Your task to perform on an android device: stop showing notifications on the lock screen Image 0: 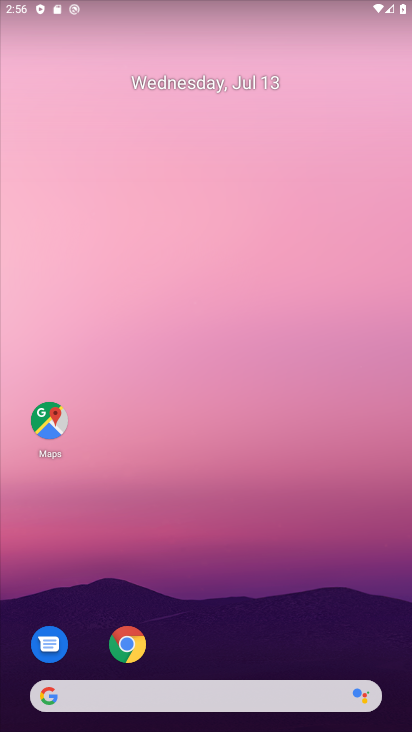
Step 0: drag from (180, 683) to (316, 64)
Your task to perform on an android device: stop showing notifications on the lock screen Image 1: 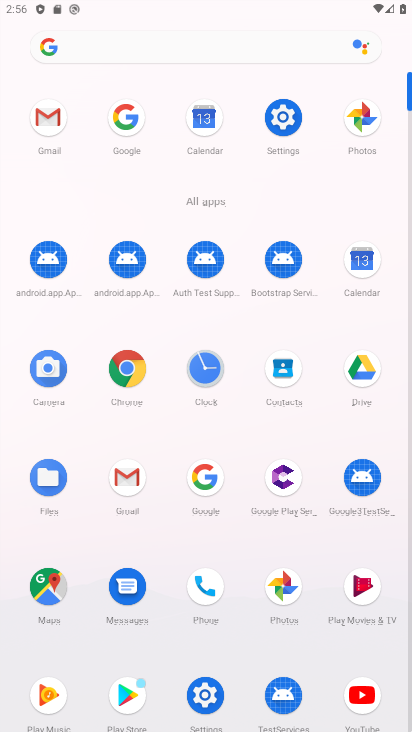
Step 1: click (283, 118)
Your task to perform on an android device: stop showing notifications on the lock screen Image 2: 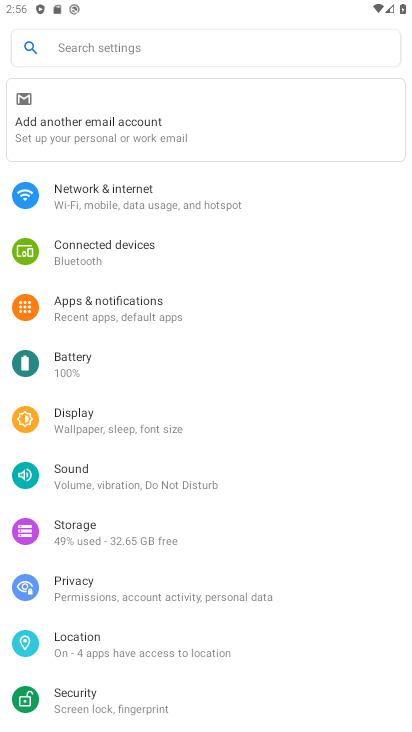
Step 2: click (98, 307)
Your task to perform on an android device: stop showing notifications on the lock screen Image 3: 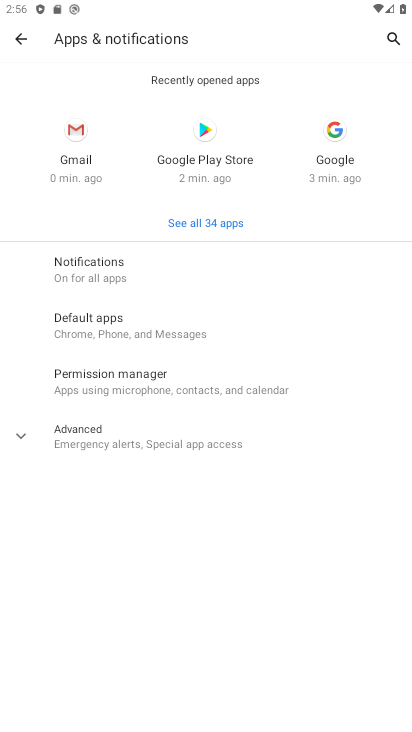
Step 3: click (99, 268)
Your task to perform on an android device: stop showing notifications on the lock screen Image 4: 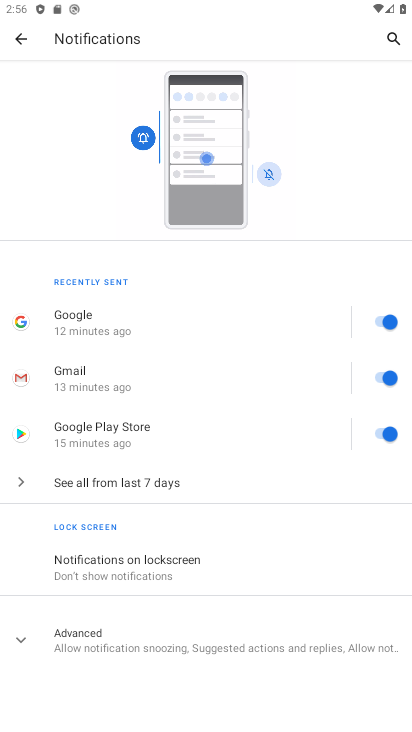
Step 4: click (109, 569)
Your task to perform on an android device: stop showing notifications on the lock screen Image 5: 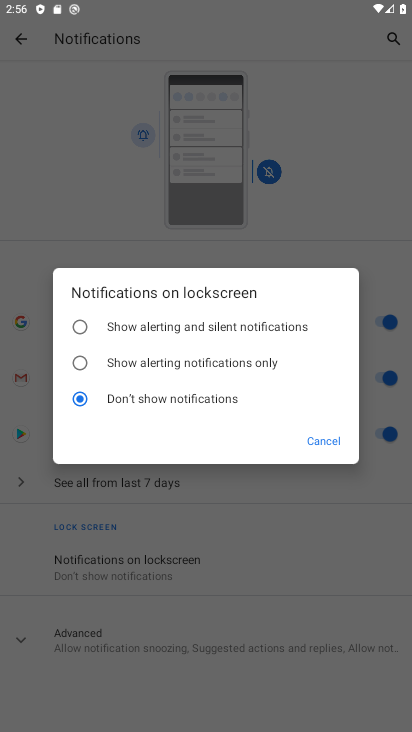
Step 5: click (81, 406)
Your task to perform on an android device: stop showing notifications on the lock screen Image 6: 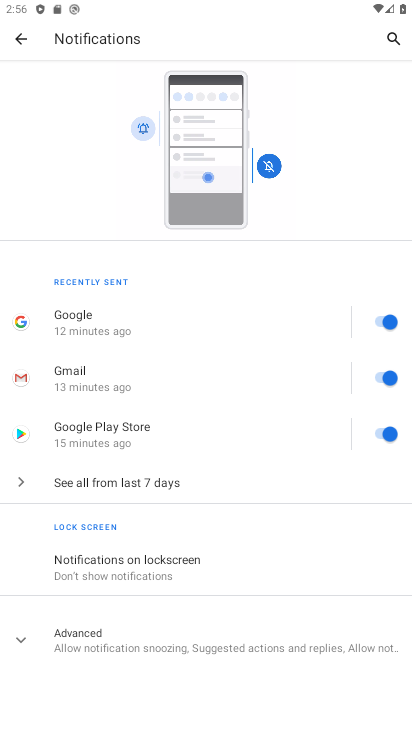
Step 6: task complete